Your task to perform on an android device: visit the assistant section in the google photos Image 0: 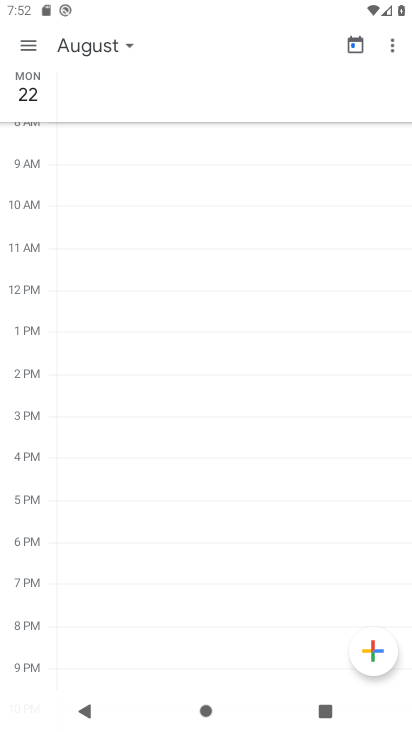
Step 0: press home button
Your task to perform on an android device: visit the assistant section in the google photos Image 1: 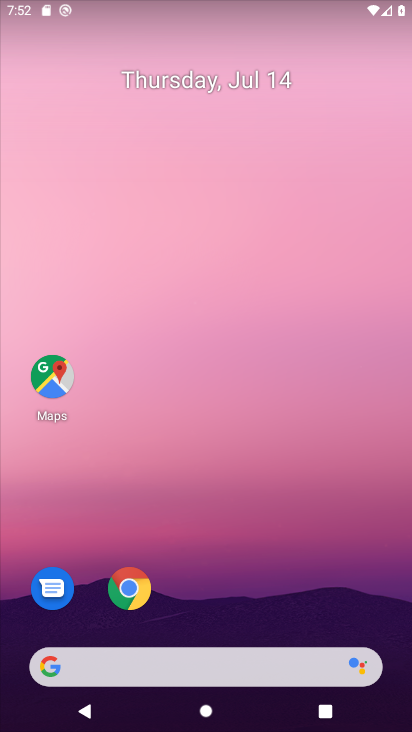
Step 1: drag from (341, 600) to (405, 78)
Your task to perform on an android device: visit the assistant section in the google photos Image 2: 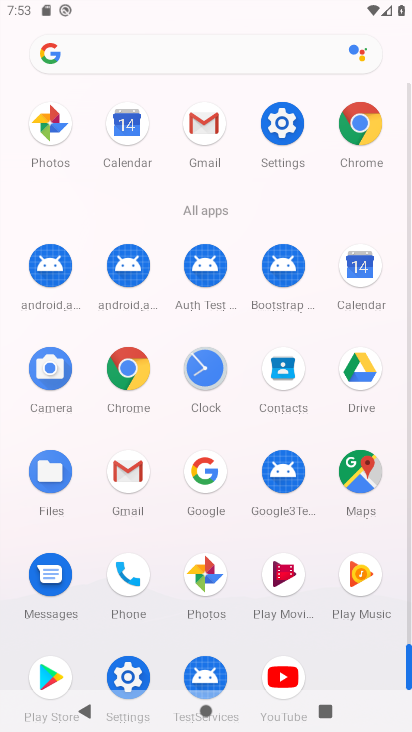
Step 2: click (198, 579)
Your task to perform on an android device: visit the assistant section in the google photos Image 3: 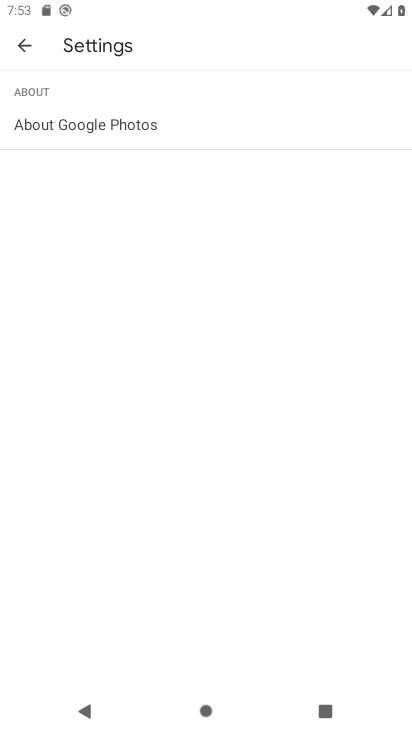
Step 3: press back button
Your task to perform on an android device: visit the assistant section in the google photos Image 4: 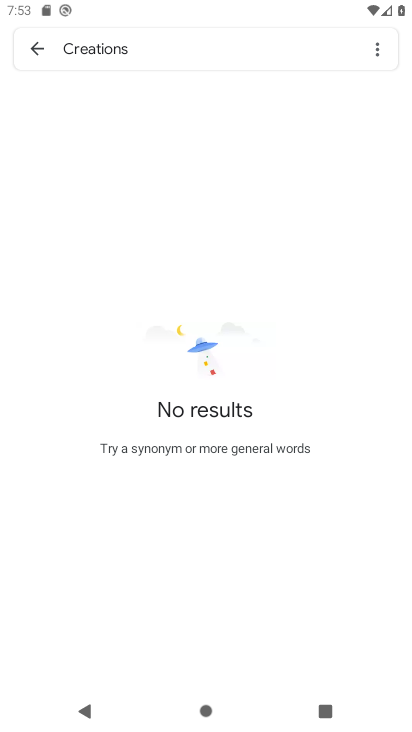
Step 4: press back button
Your task to perform on an android device: visit the assistant section in the google photos Image 5: 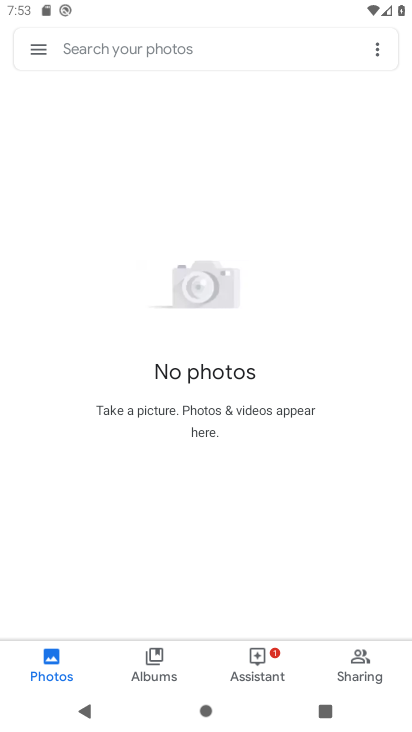
Step 5: click (257, 663)
Your task to perform on an android device: visit the assistant section in the google photos Image 6: 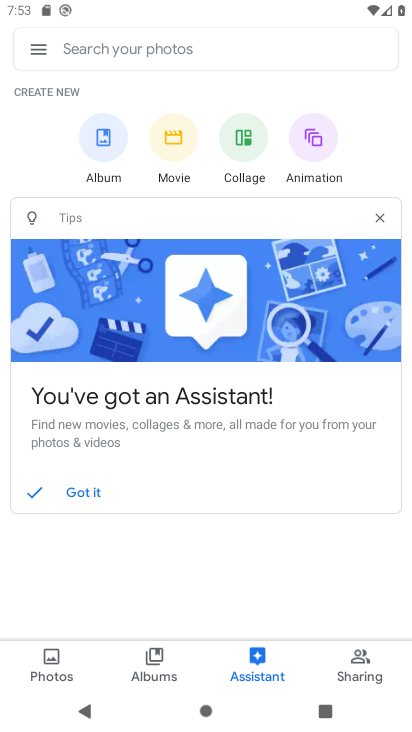
Step 6: task complete